Your task to perform on an android device: What's the weather going to be this weekend? Image 0: 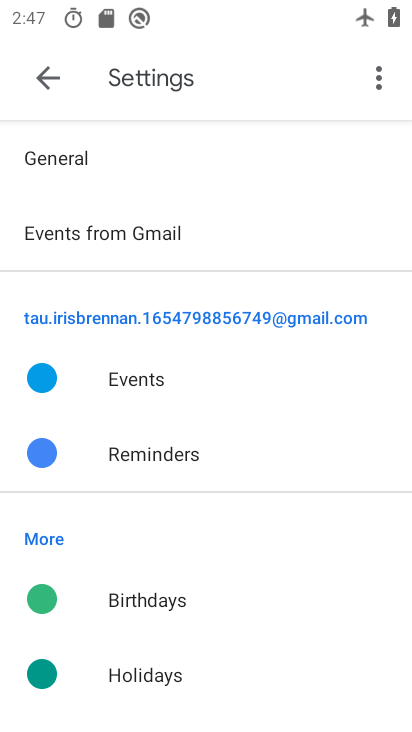
Step 0: press home button
Your task to perform on an android device: What's the weather going to be this weekend? Image 1: 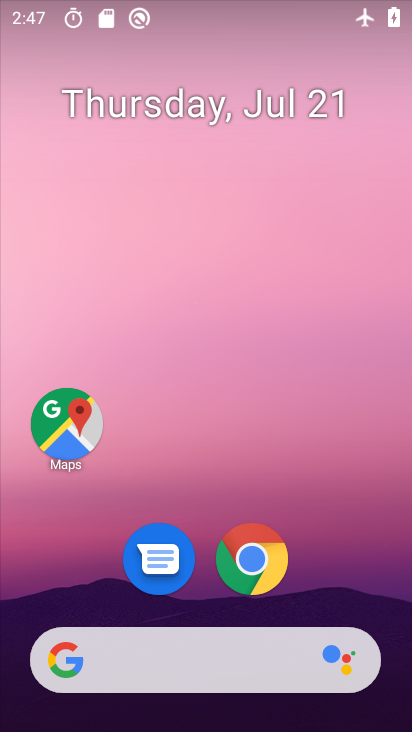
Step 1: click (251, 649)
Your task to perform on an android device: What's the weather going to be this weekend? Image 2: 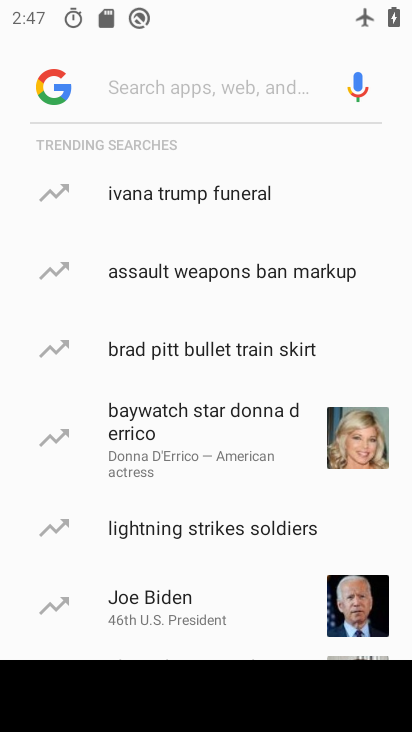
Step 2: type "weather"
Your task to perform on an android device: What's the weather going to be this weekend? Image 3: 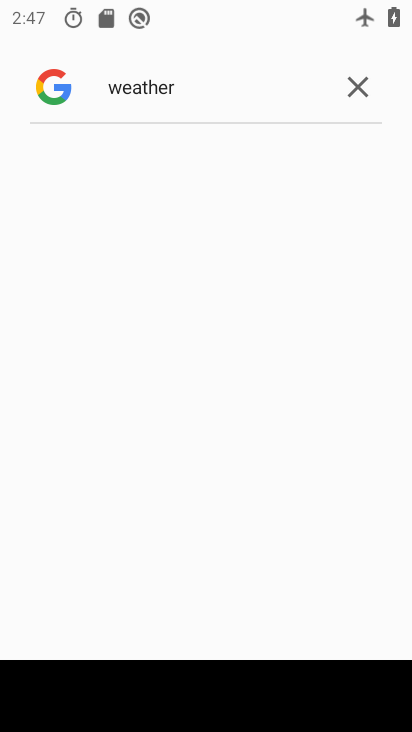
Step 3: task complete